Your task to perform on an android device: turn on airplane mode Image 0: 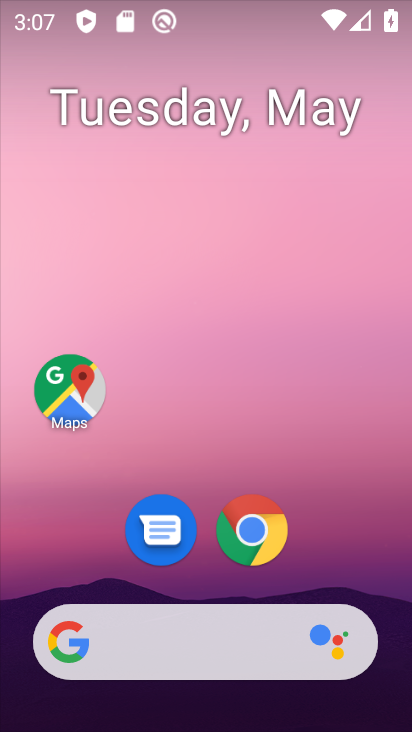
Step 0: drag from (115, 525) to (245, 1)
Your task to perform on an android device: turn on airplane mode Image 1: 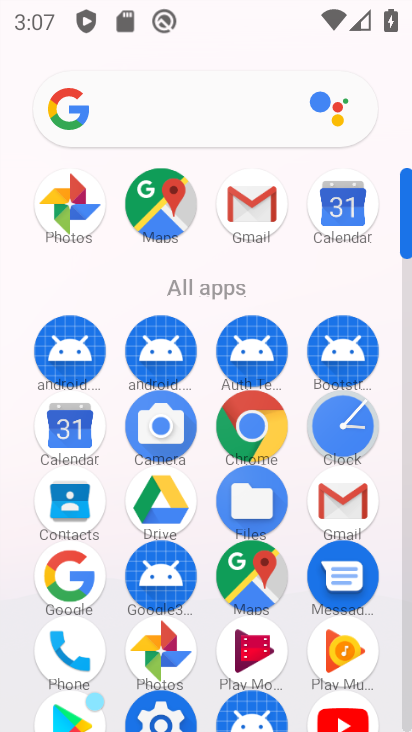
Step 1: drag from (167, 582) to (234, 301)
Your task to perform on an android device: turn on airplane mode Image 2: 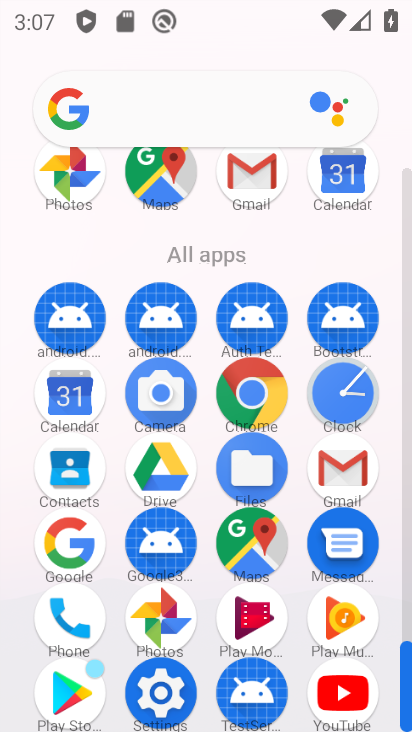
Step 2: click (172, 680)
Your task to perform on an android device: turn on airplane mode Image 3: 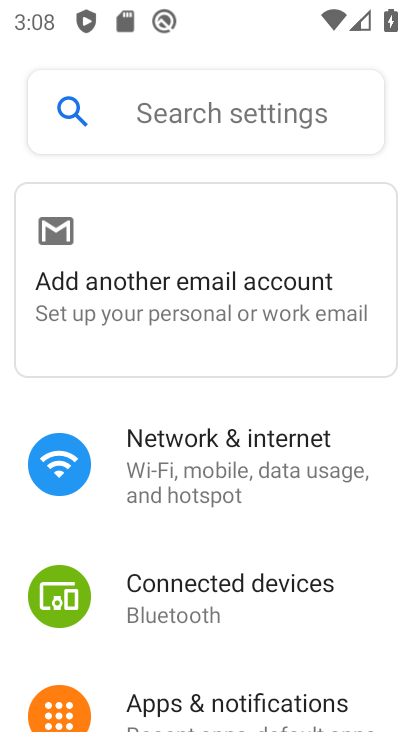
Step 3: click (310, 503)
Your task to perform on an android device: turn on airplane mode Image 4: 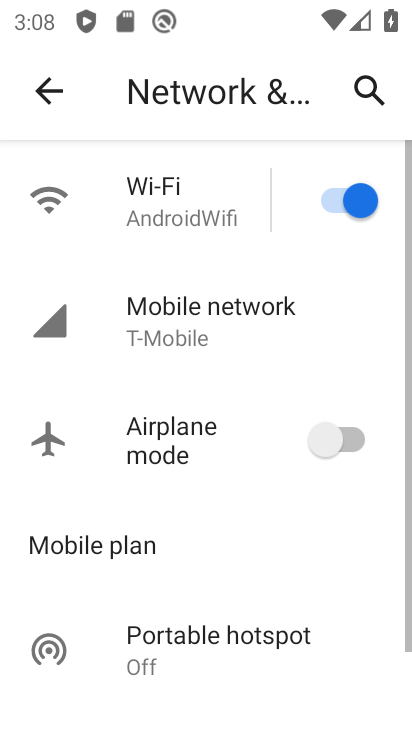
Step 4: click (356, 443)
Your task to perform on an android device: turn on airplane mode Image 5: 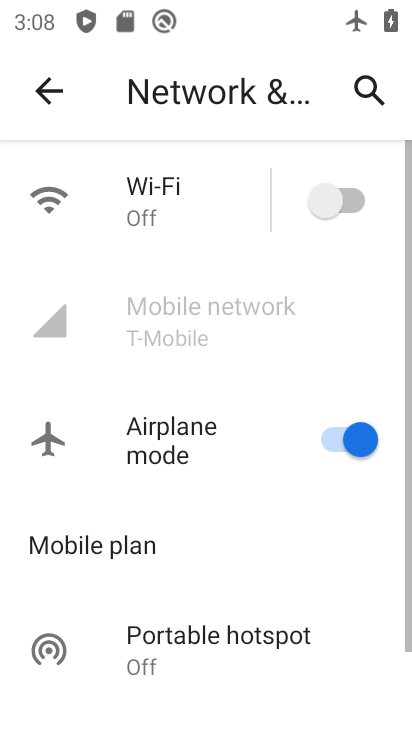
Step 5: task complete